Your task to perform on an android device: see tabs open on other devices in the chrome app Image 0: 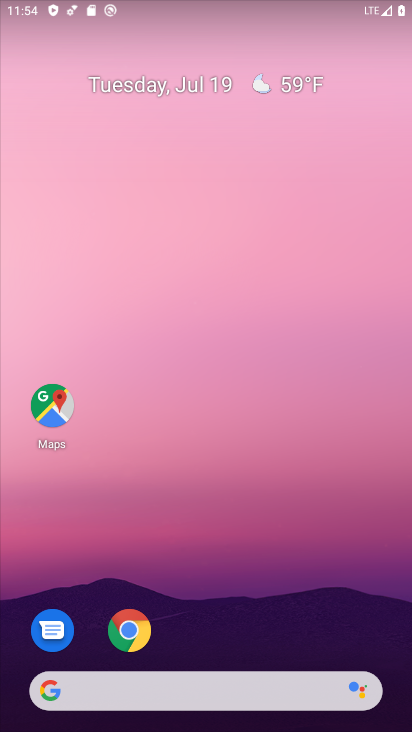
Step 0: drag from (237, 677) to (308, 64)
Your task to perform on an android device: see tabs open on other devices in the chrome app Image 1: 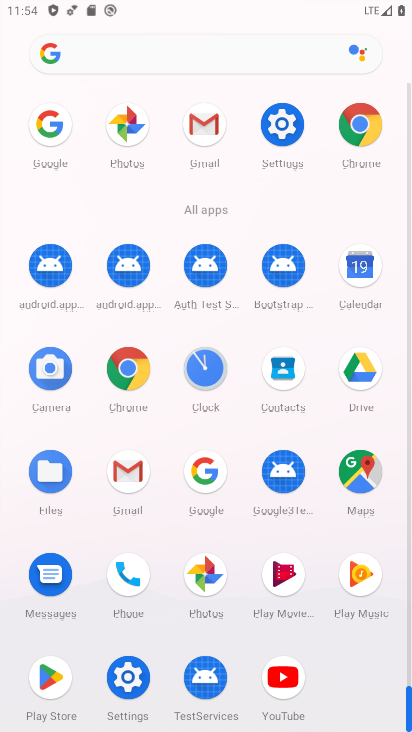
Step 1: click (357, 148)
Your task to perform on an android device: see tabs open on other devices in the chrome app Image 2: 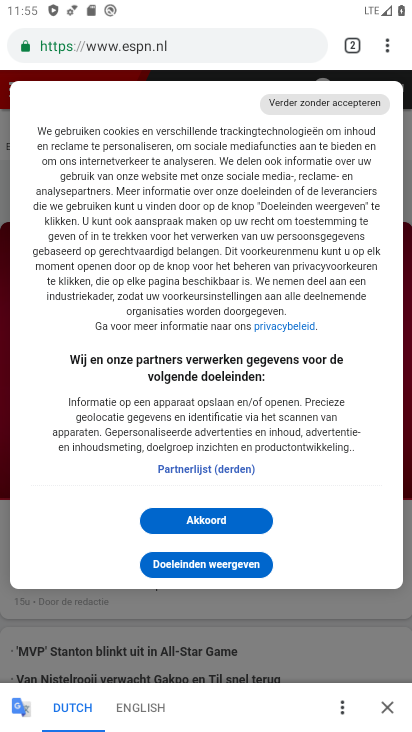
Step 2: task complete